Your task to perform on an android device: Turn on the flashlight Image 0: 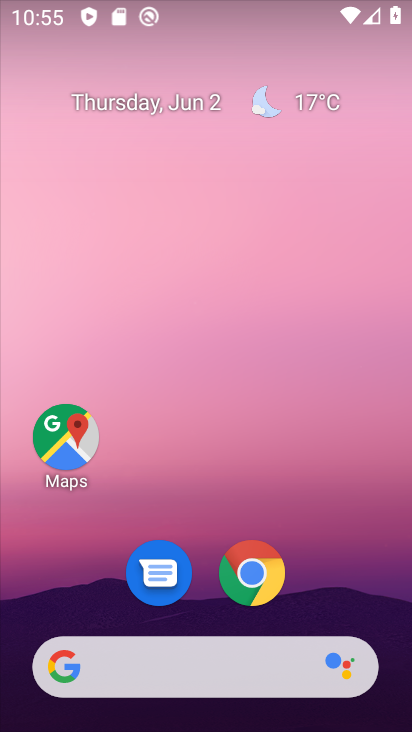
Step 0: task complete